Your task to perform on an android device: Go to Maps Image 0: 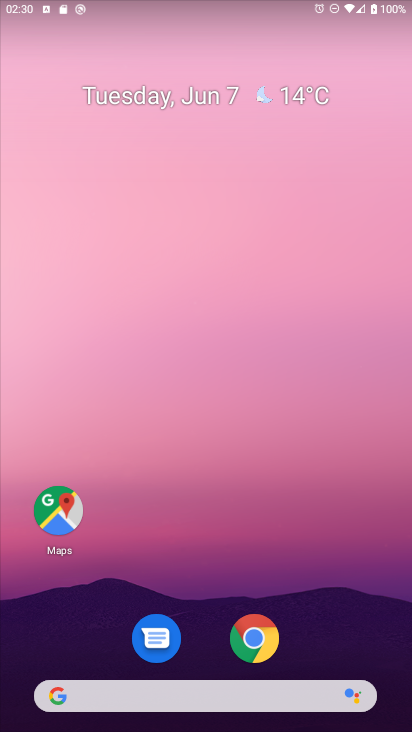
Step 0: drag from (252, 714) to (204, 214)
Your task to perform on an android device: Go to Maps Image 1: 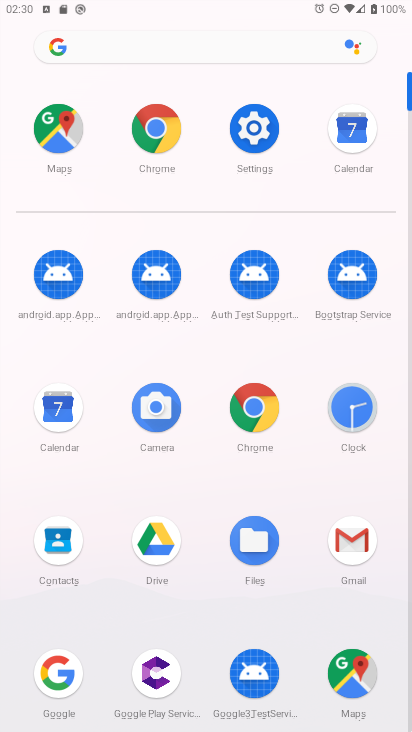
Step 1: click (339, 662)
Your task to perform on an android device: Go to Maps Image 2: 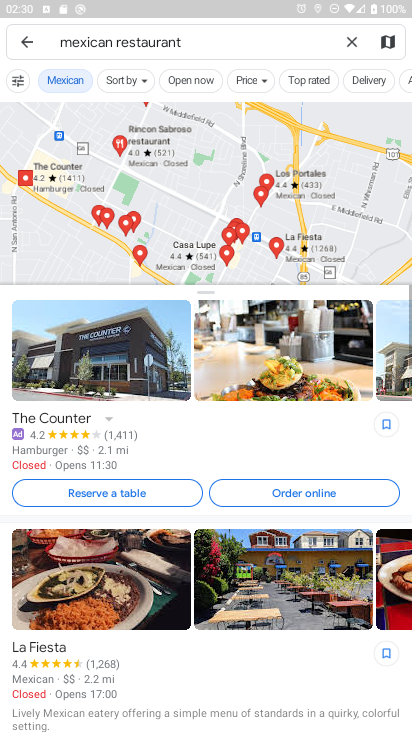
Step 2: click (27, 39)
Your task to perform on an android device: Go to Maps Image 3: 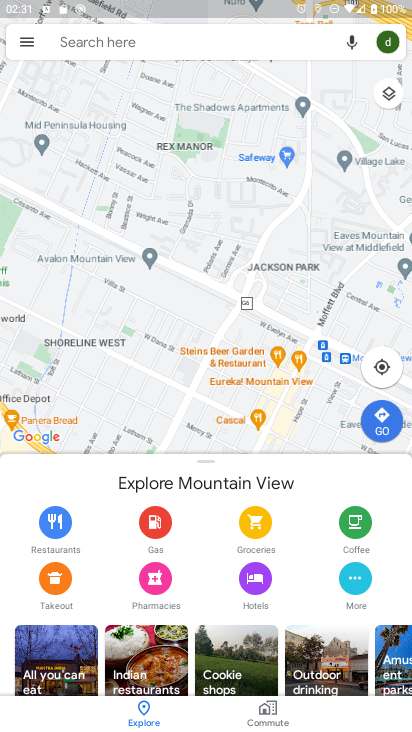
Step 3: task complete